Your task to perform on an android device: Go to Reddit.com Image 0: 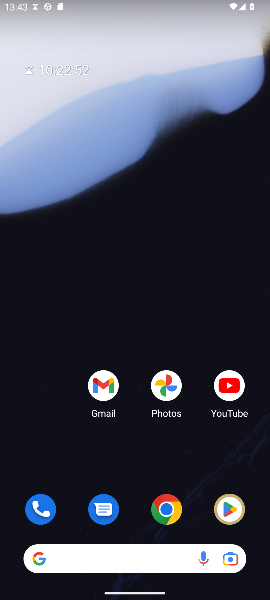
Step 0: drag from (172, 414) to (219, 151)
Your task to perform on an android device: Go to Reddit.com Image 1: 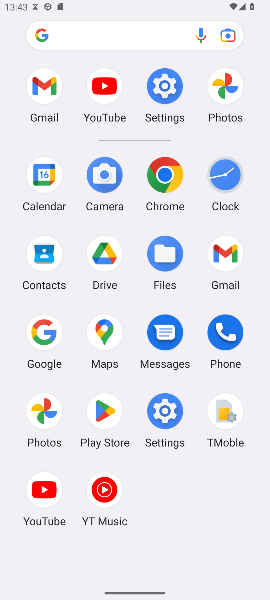
Step 1: click (37, 332)
Your task to perform on an android device: Go to Reddit.com Image 2: 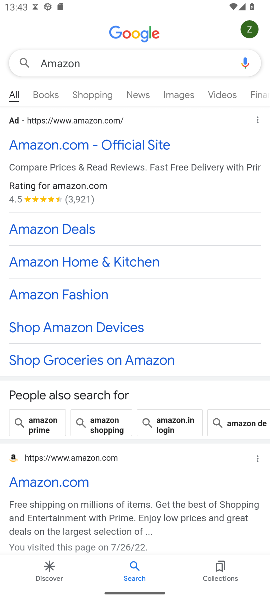
Step 2: click (95, 62)
Your task to perform on an android device: Go to Reddit.com Image 3: 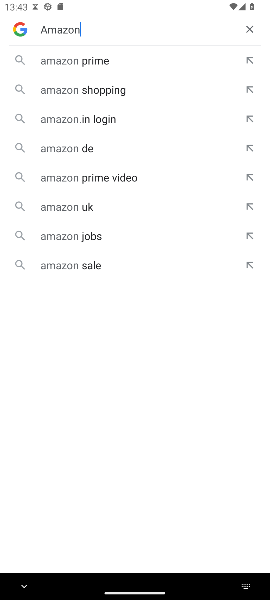
Step 3: click (246, 29)
Your task to perform on an android device: Go to Reddit.com Image 4: 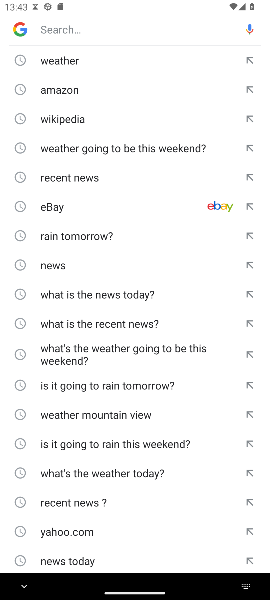
Step 4: type " Reddit.com"
Your task to perform on an android device: Go to Reddit.com Image 5: 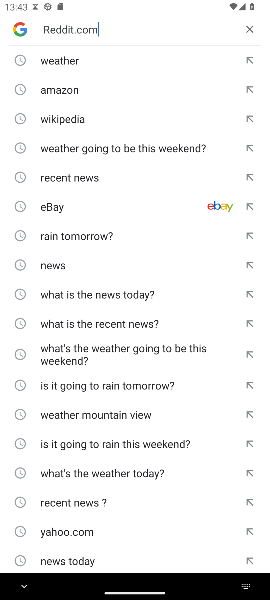
Step 5: press enter
Your task to perform on an android device: Go to Reddit.com Image 6: 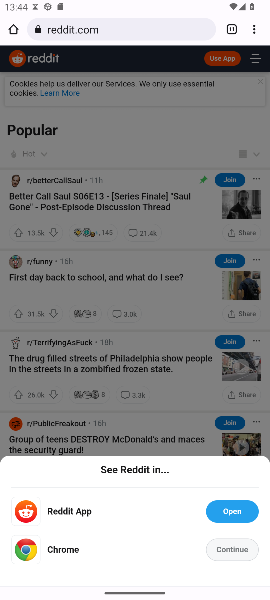
Step 6: task complete